Your task to perform on an android device: What is the recent news? Image 0: 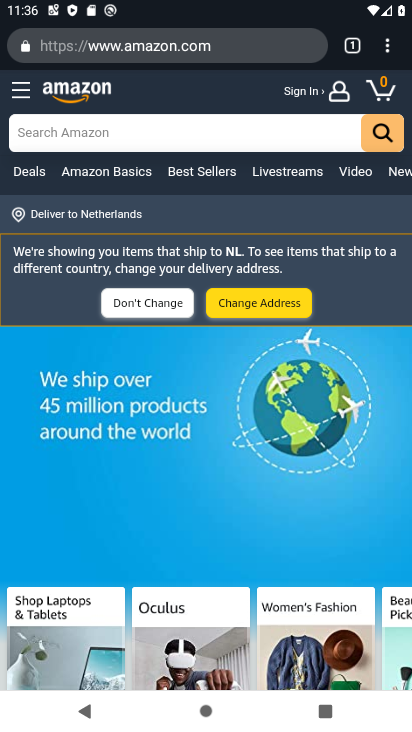
Step 0: press home button
Your task to perform on an android device: What is the recent news? Image 1: 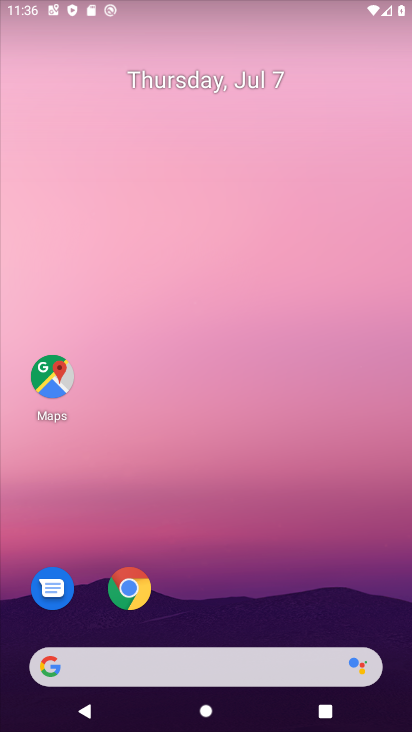
Step 1: drag from (232, 598) to (346, 72)
Your task to perform on an android device: What is the recent news? Image 2: 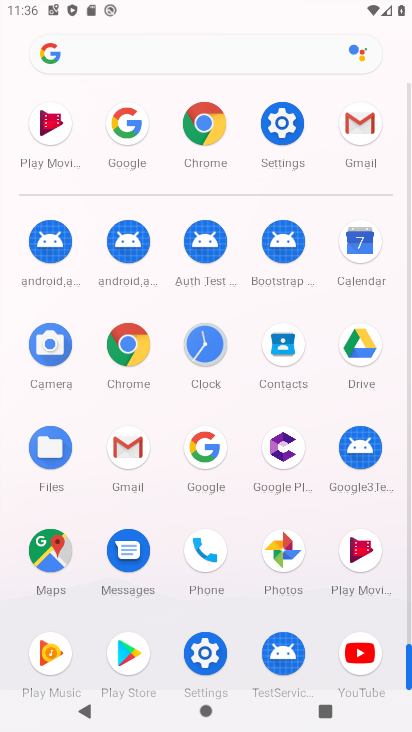
Step 2: click (205, 447)
Your task to perform on an android device: What is the recent news? Image 3: 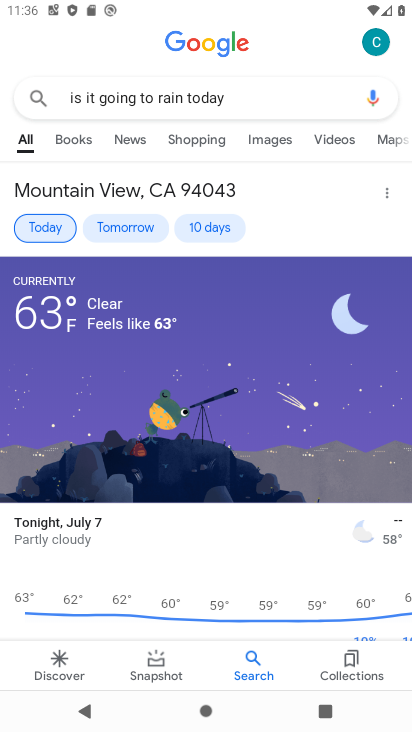
Step 3: click (267, 101)
Your task to perform on an android device: What is the recent news? Image 4: 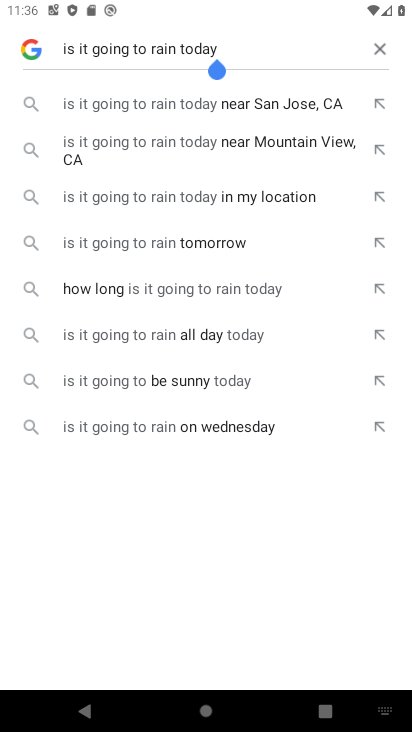
Step 4: click (378, 48)
Your task to perform on an android device: What is the recent news? Image 5: 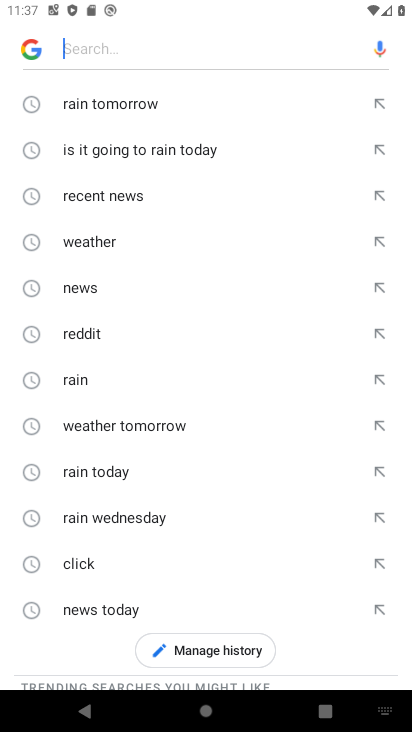
Step 5: type "recent news"
Your task to perform on an android device: What is the recent news? Image 6: 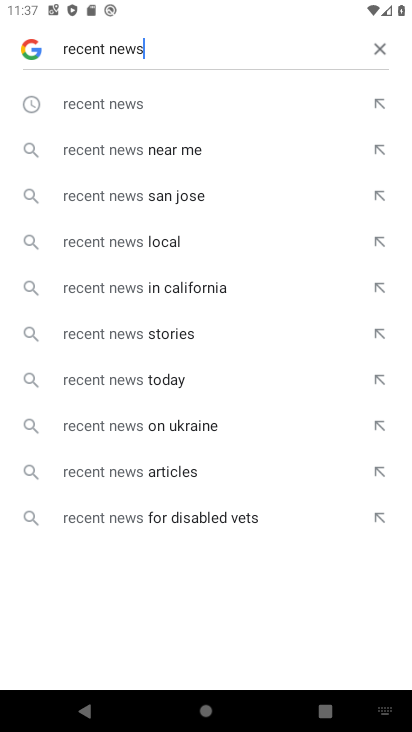
Step 6: click (142, 105)
Your task to perform on an android device: What is the recent news? Image 7: 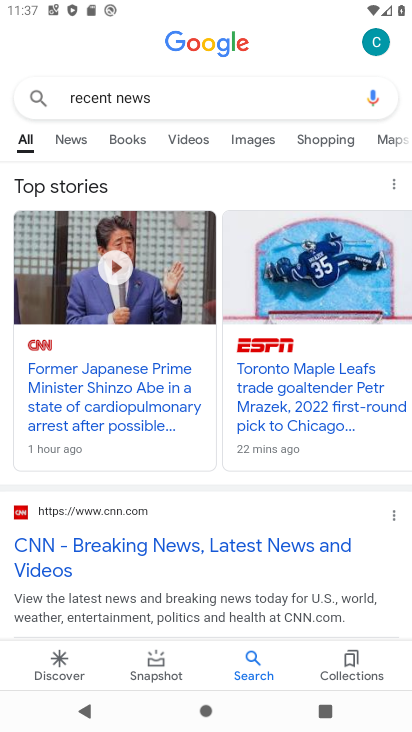
Step 7: task complete